Your task to perform on an android device: install app "File Manager" Image 0: 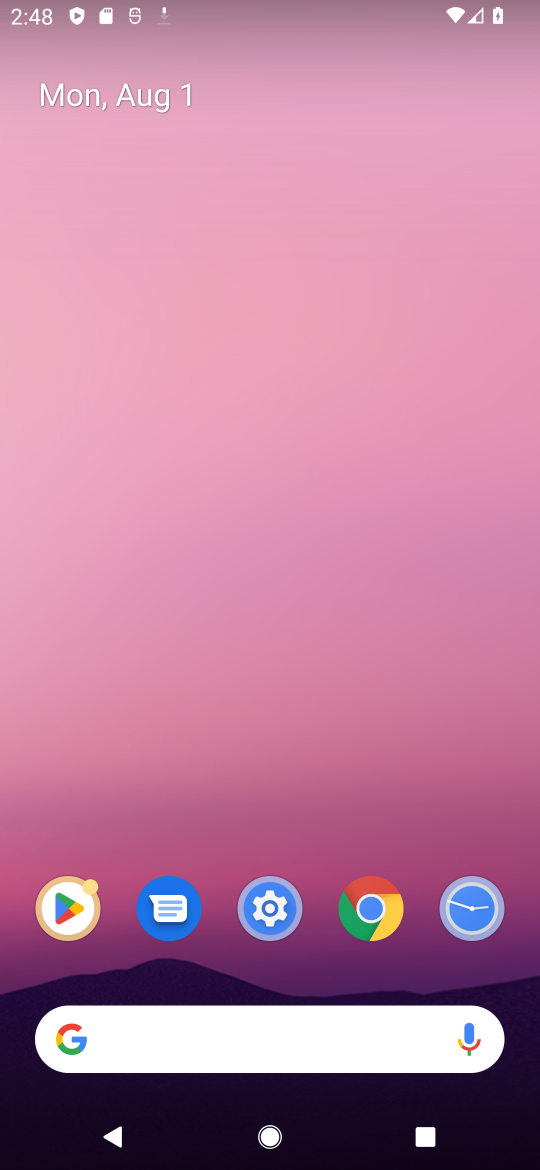
Step 0: drag from (347, 981) to (284, 127)
Your task to perform on an android device: install app "File Manager" Image 1: 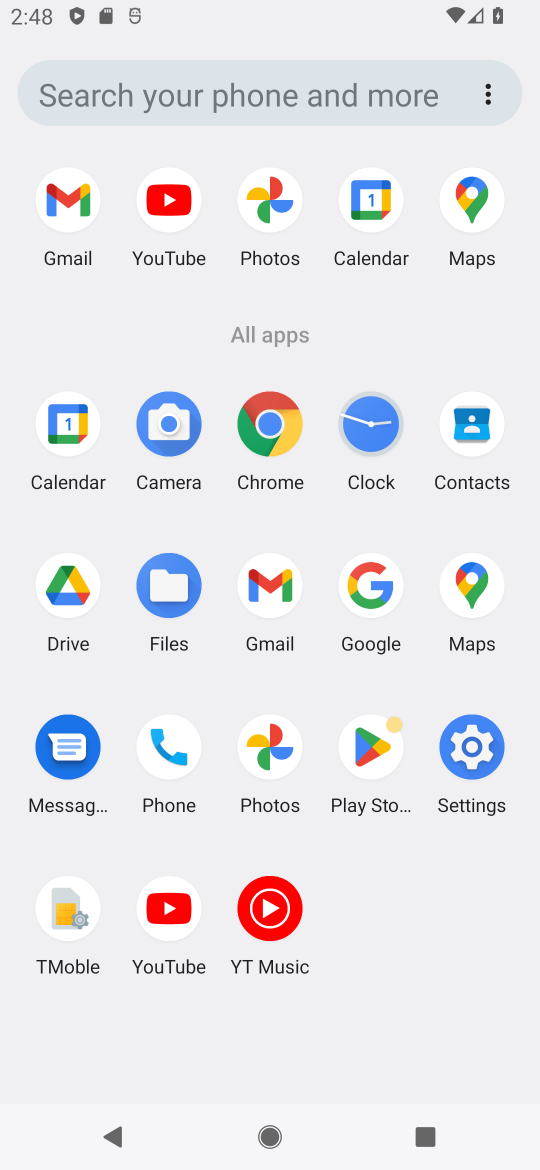
Step 1: click (379, 759)
Your task to perform on an android device: install app "File Manager" Image 2: 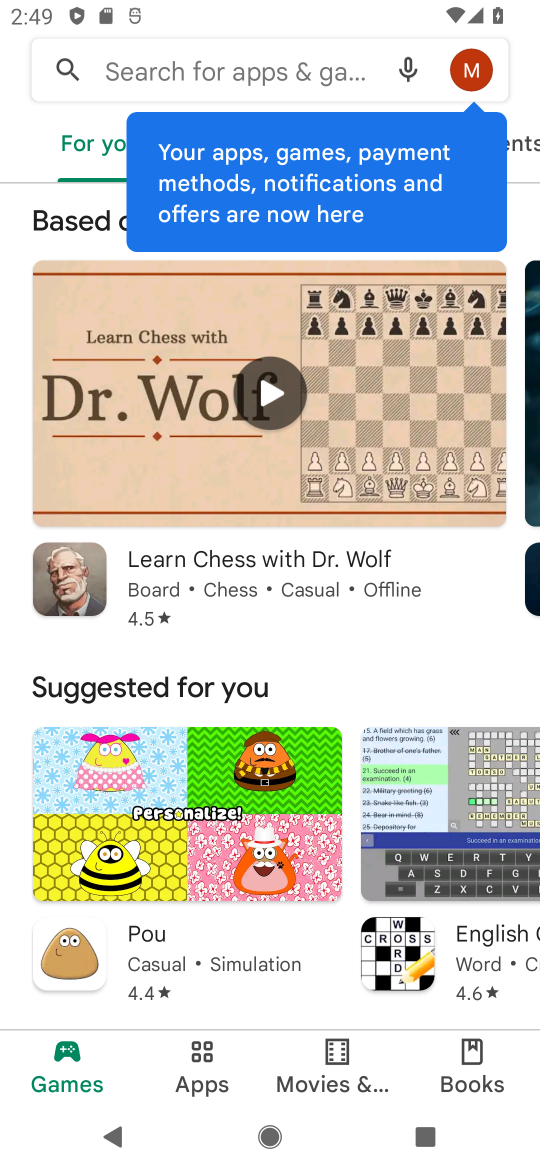
Step 2: click (115, 69)
Your task to perform on an android device: install app "File Manager" Image 3: 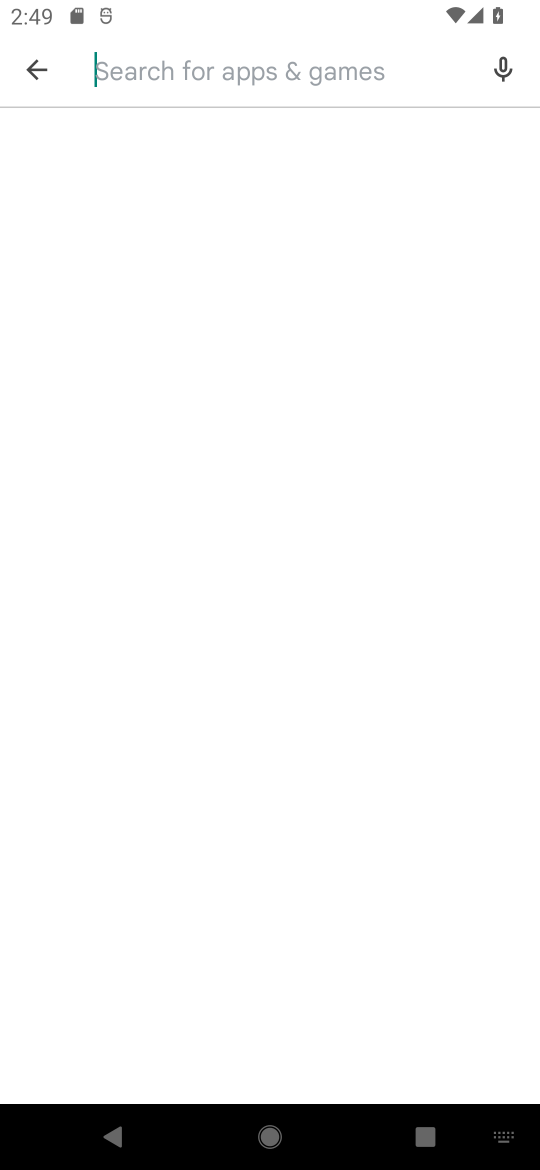
Step 3: type "File Manage"
Your task to perform on an android device: install app "File Manager" Image 4: 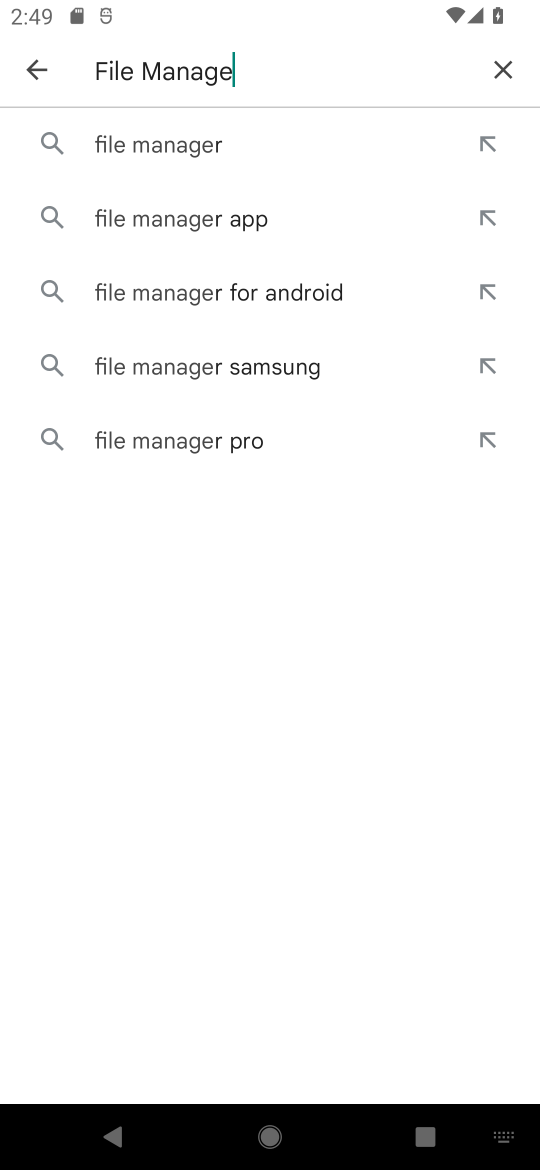
Step 4: click (160, 153)
Your task to perform on an android device: install app "File Manager" Image 5: 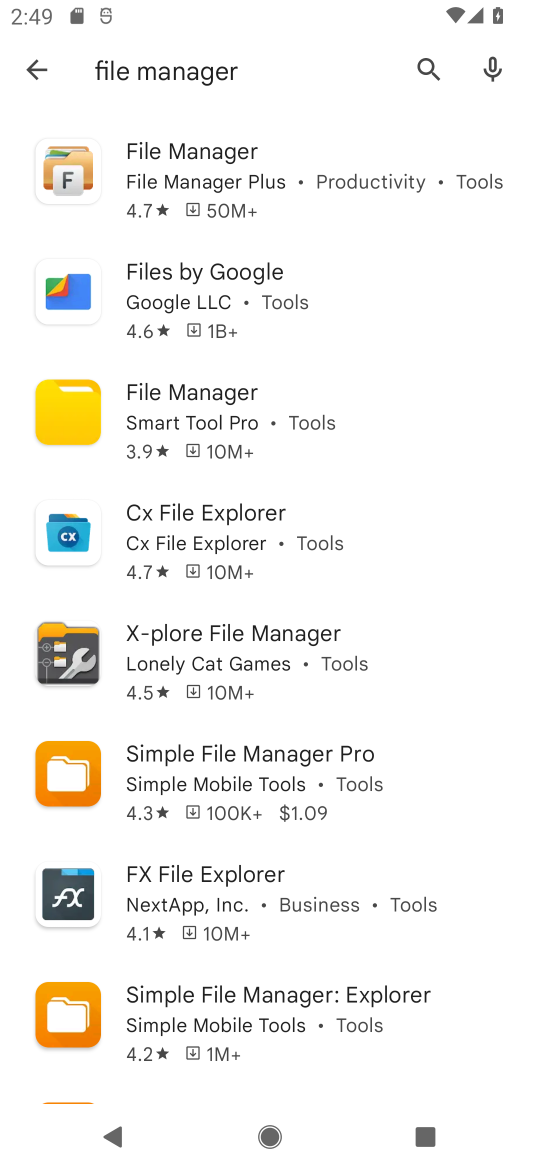
Step 5: click (396, 195)
Your task to perform on an android device: install app "File Manager" Image 6: 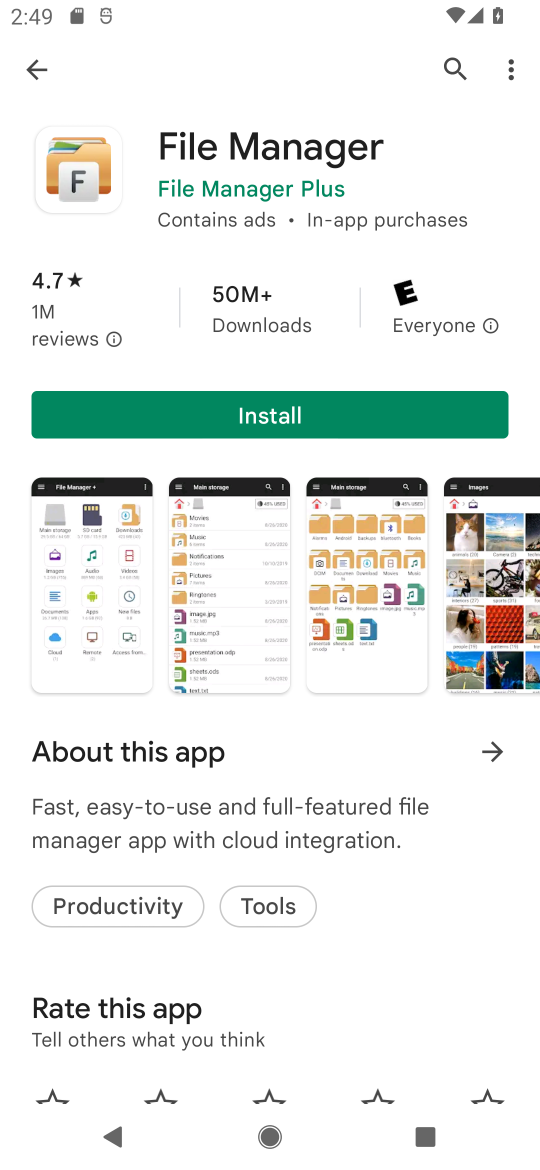
Step 6: click (266, 426)
Your task to perform on an android device: install app "File Manager" Image 7: 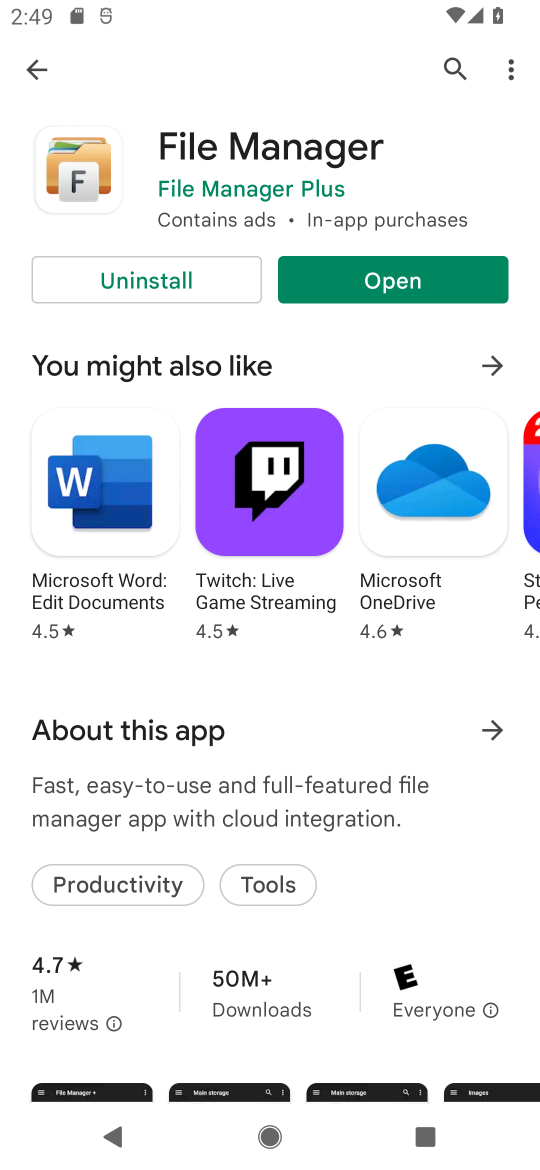
Step 7: click (403, 280)
Your task to perform on an android device: install app "File Manager" Image 8: 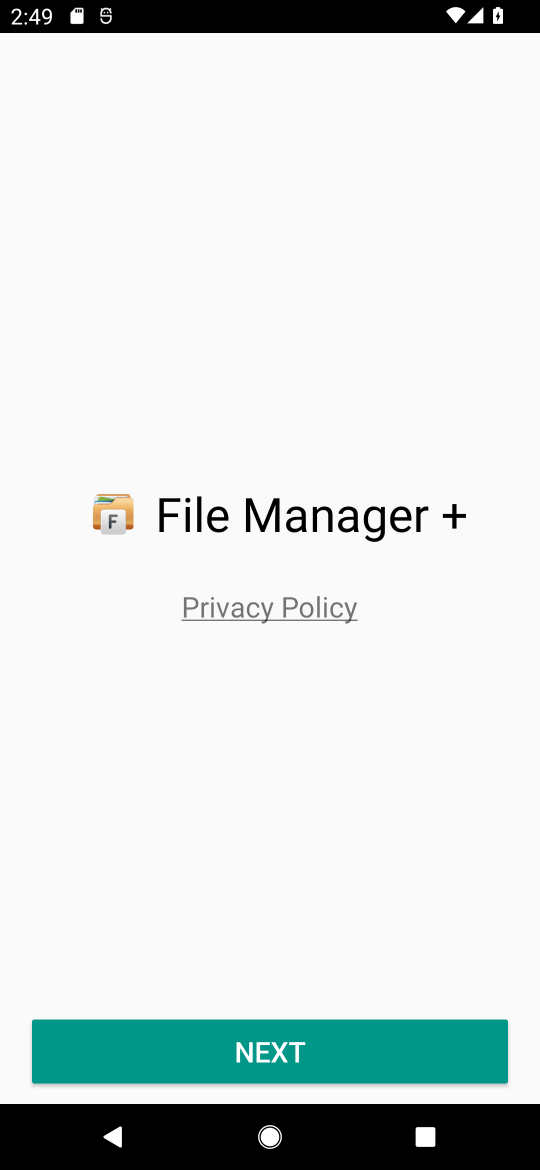
Step 8: task complete